Your task to perform on an android device: Do I have any events today? Image 0: 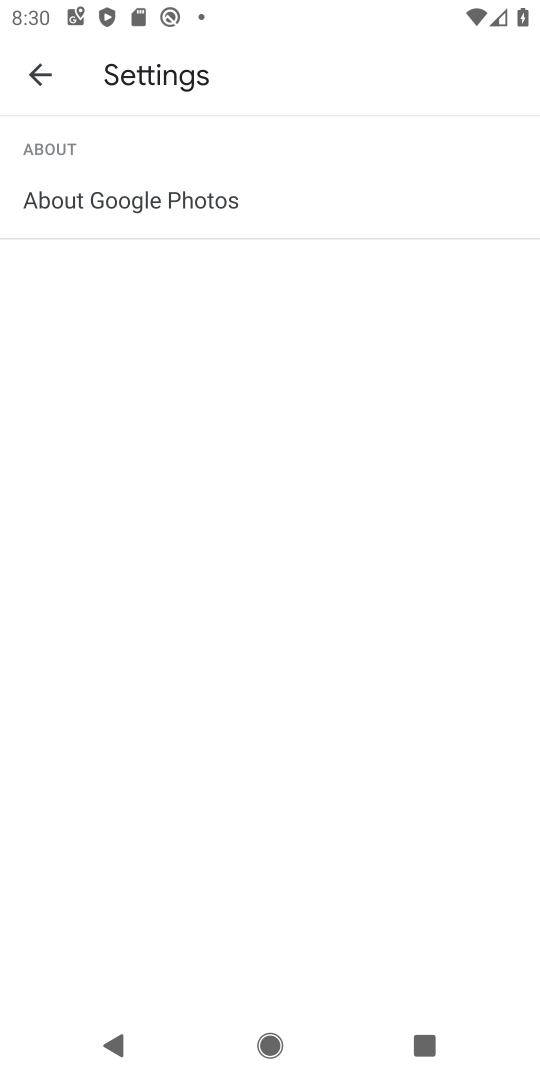
Step 0: press home button
Your task to perform on an android device: Do I have any events today? Image 1: 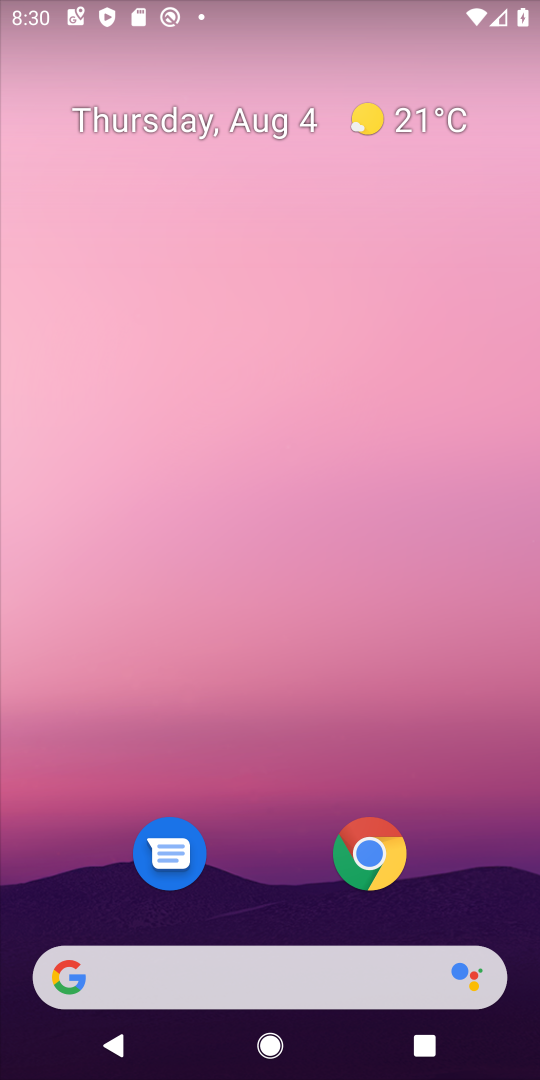
Step 1: drag from (162, 924) to (239, 507)
Your task to perform on an android device: Do I have any events today? Image 2: 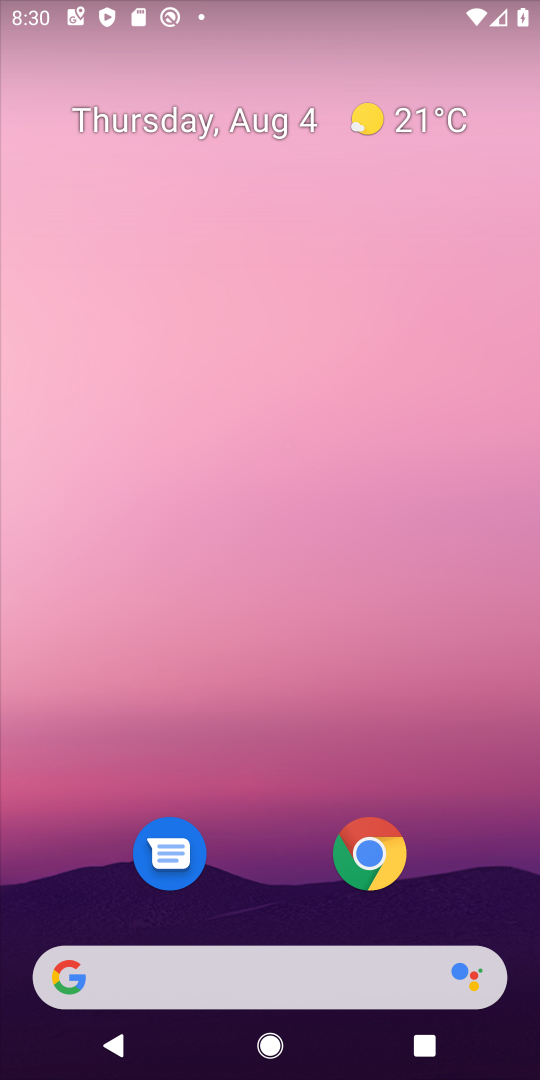
Step 2: drag from (250, 947) to (296, 254)
Your task to perform on an android device: Do I have any events today? Image 3: 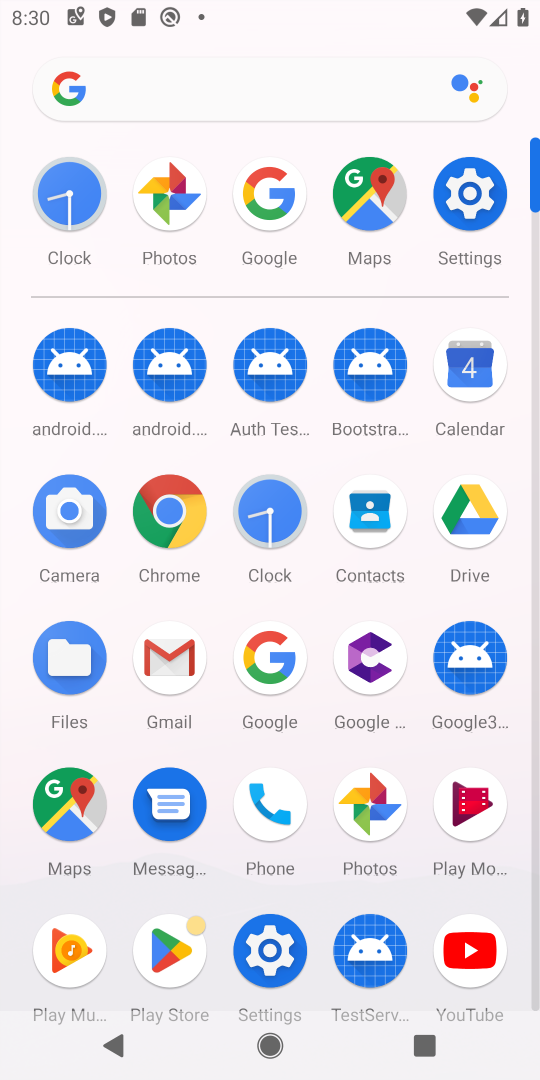
Step 3: click (459, 375)
Your task to perform on an android device: Do I have any events today? Image 4: 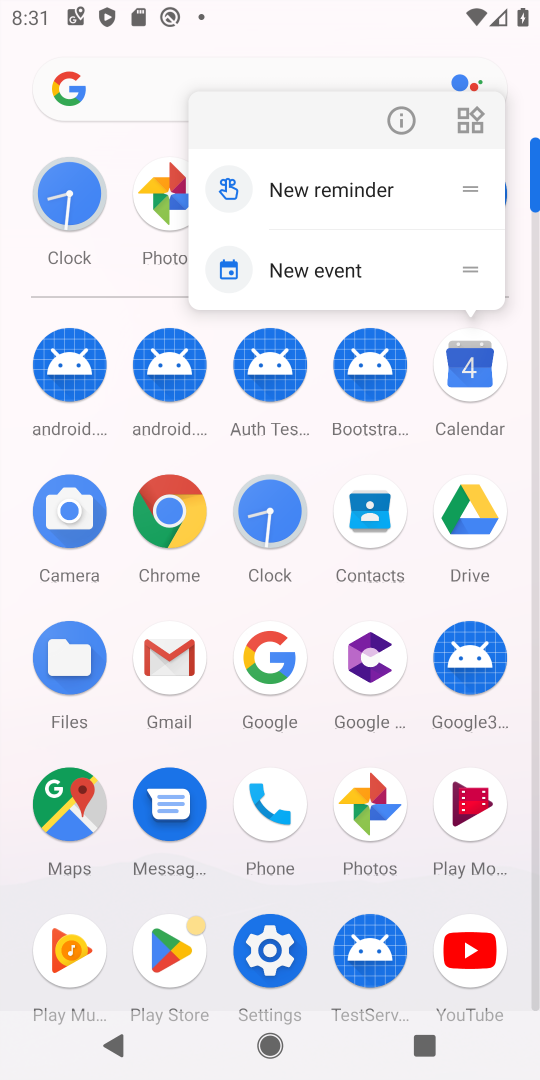
Step 4: click (17, 148)
Your task to perform on an android device: Do I have any events today? Image 5: 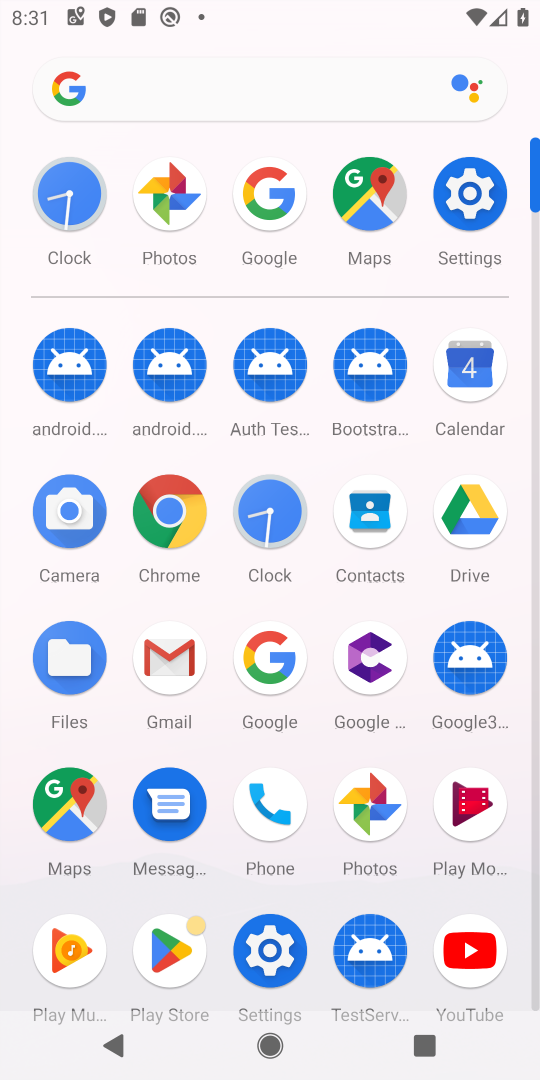
Step 5: click (308, 46)
Your task to perform on an android device: Do I have any events today? Image 6: 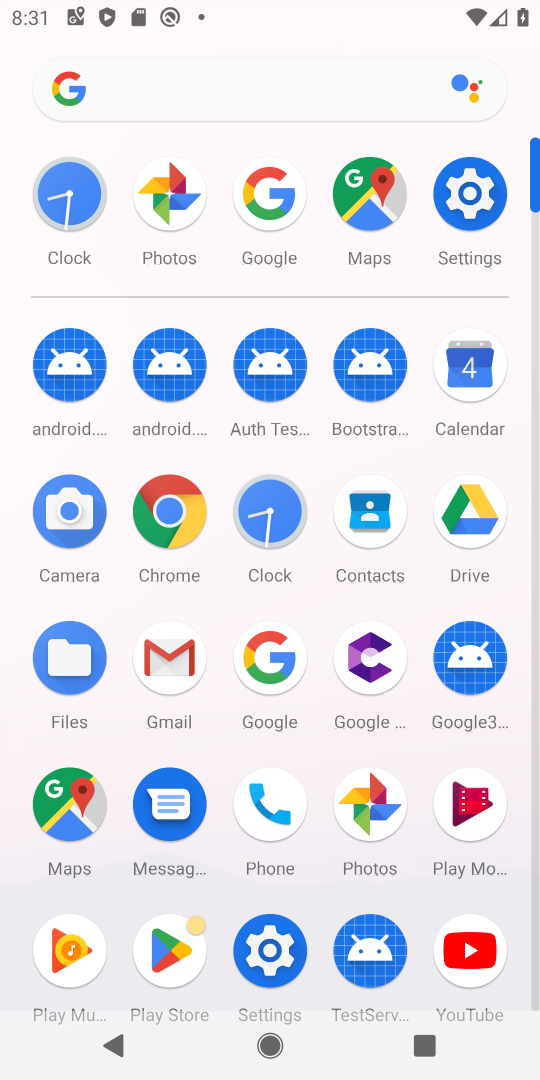
Step 6: click (461, 374)
Your task to perform on an android device: Do I have any events today? Image 7: 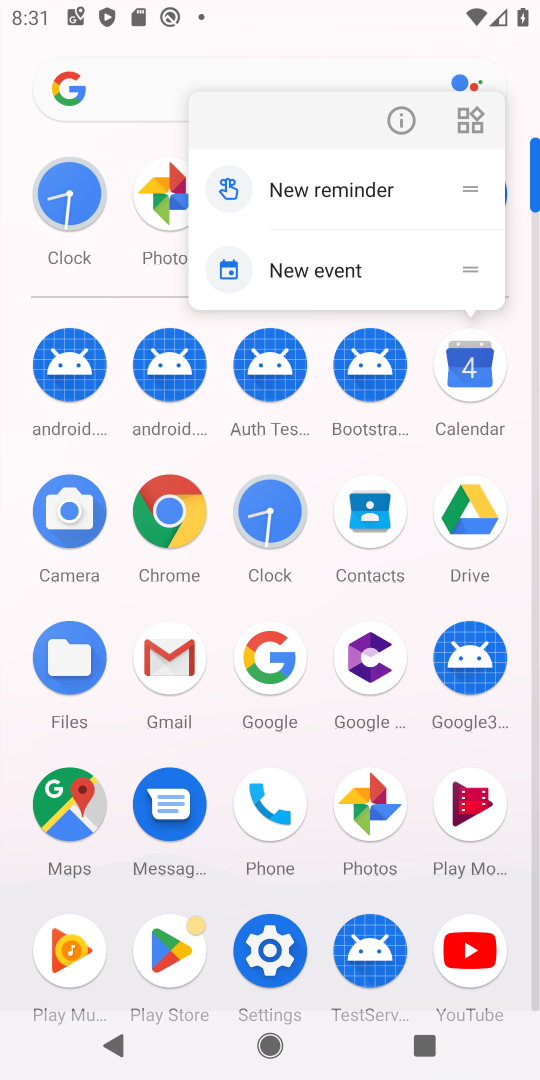
Step 7: click (461, 374)
Your task to perform on an android device: Do I have any events today? Image 8: 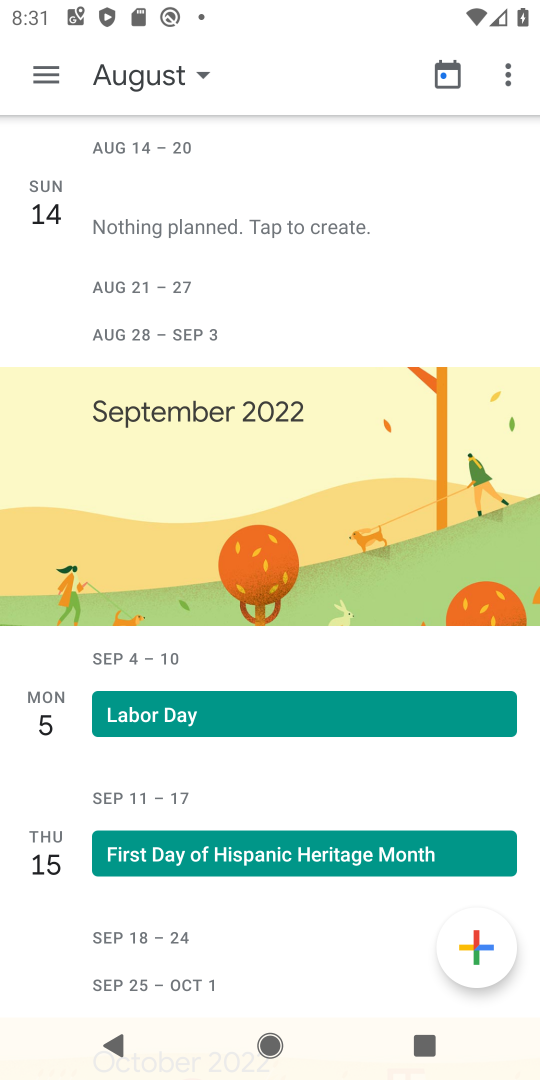
Step 8: click (137, 82)
Your task to perform on an android device: Do I have any events today? Image 9: 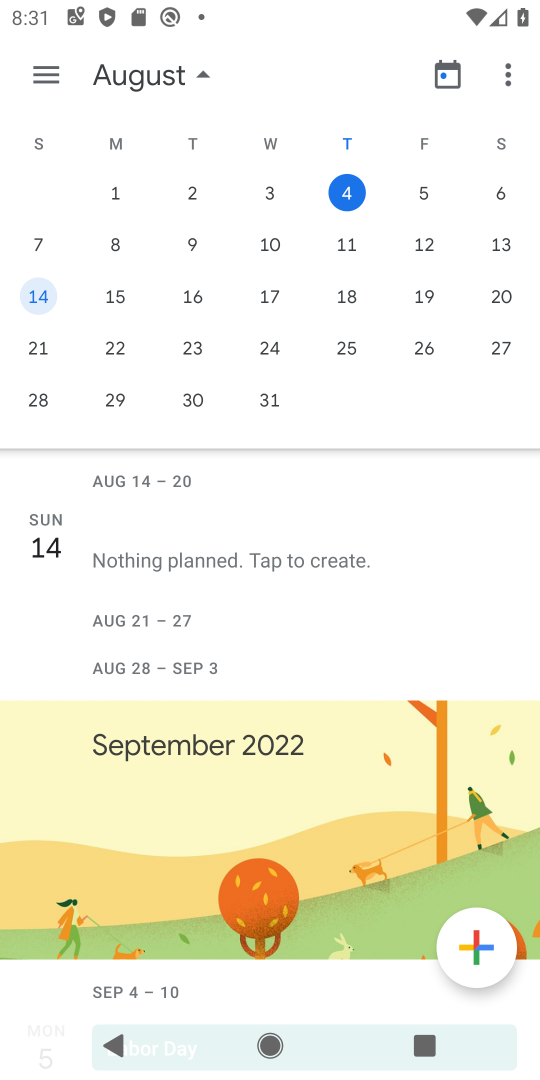
Step 9: click (338, 190)
Your task to perform on an android device: Do I have any events today? Image 10: 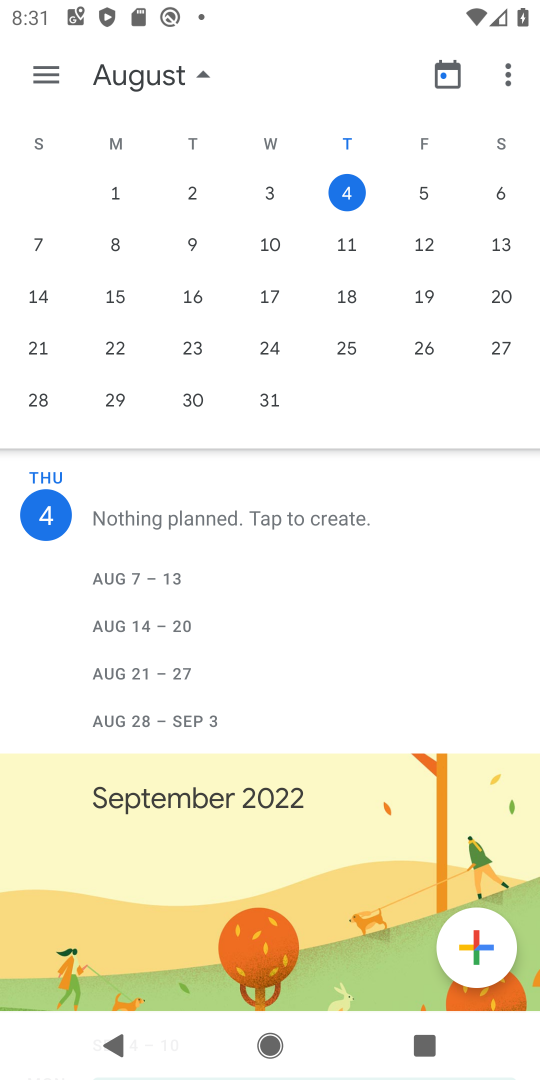
Step 10: task complete